Your task to perform on an android device: Open calendar and show me the second week of next month Image 0: 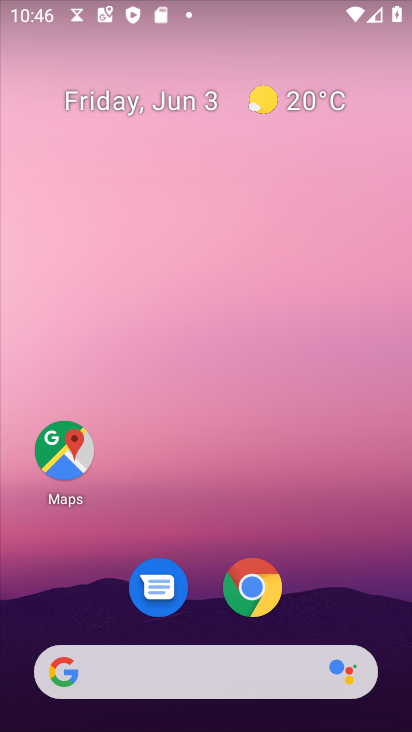
Step 0: click (148, 99)
Your task to perform on an android device: Open calendar and show me the second week of next month Image 1: 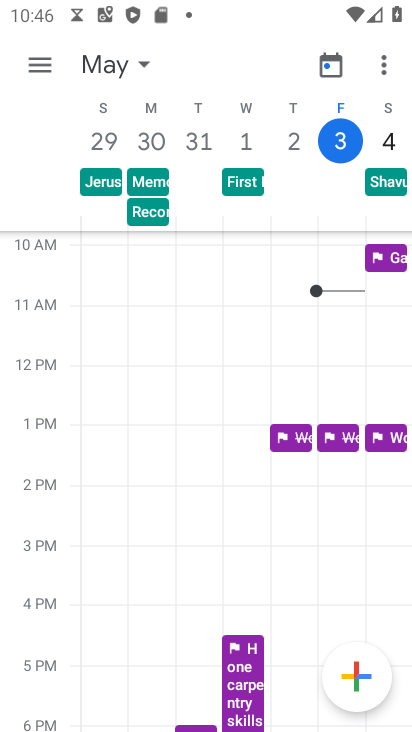
Step 1: click (152, 65)
Your task to perform on an android device: Open calendar and show me the second week of next month Image 2: 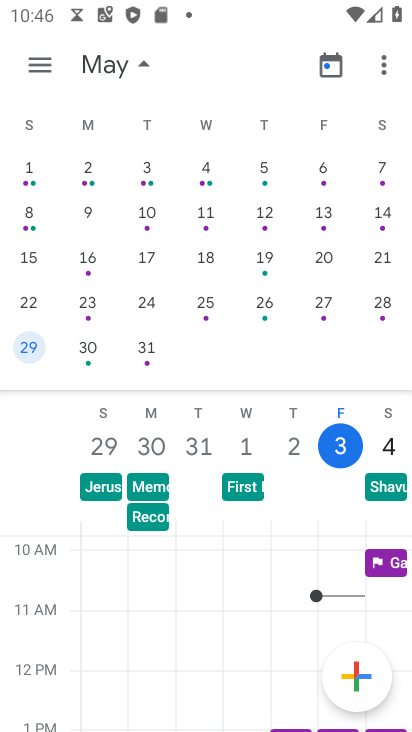
Step 2: drag from (350, 267) to (4, 218)
Your task to perform on an android device: Open calendar and show me the second week of next month Image 3: 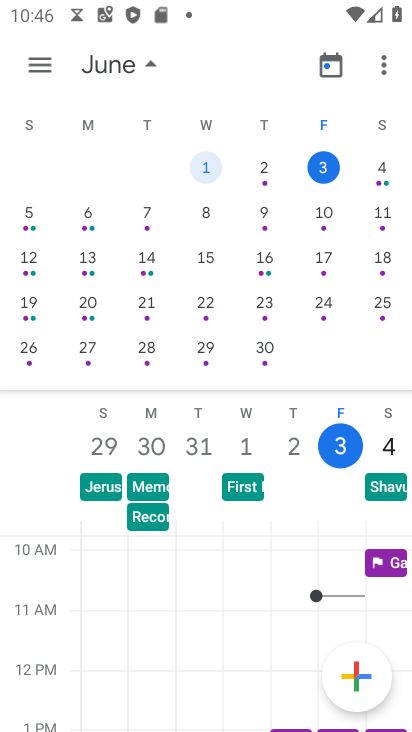
Step 3: drag from (16, 263) to (11, 141)
Your task to perform on an android device: Open calendar and show me the second week of next month Image 4: 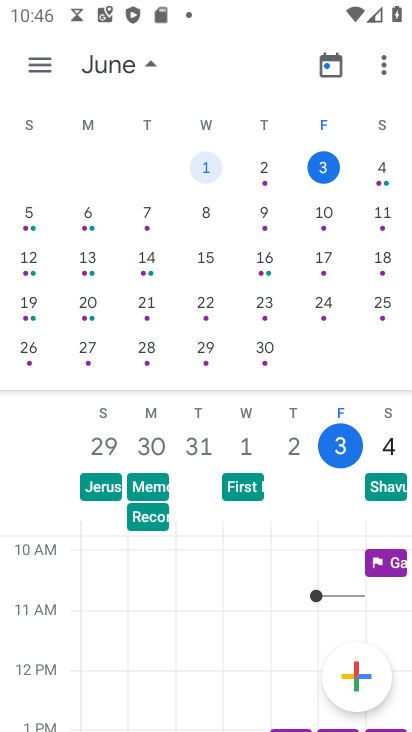
Step 4: drag from (352, 252) to (5, 320)
Your task to perform on an android device: Open calendar and show me the second week of next month Image 5: 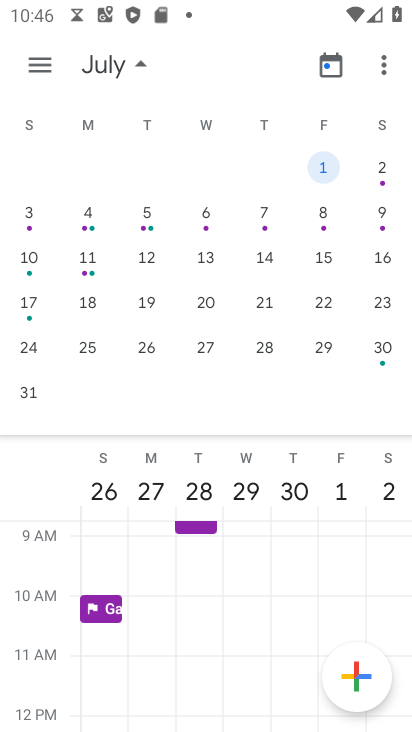
Step 5: click (36, 221)
Your task to perform on an android device: Open calendar and show me the second week of next month Image 6: 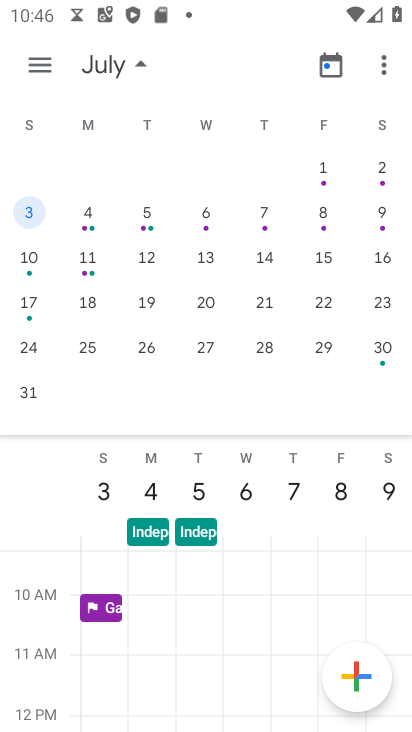
Step 6: task complete